Your task to perform on an android device: turn on showing notifications on the lock screen Image 0: 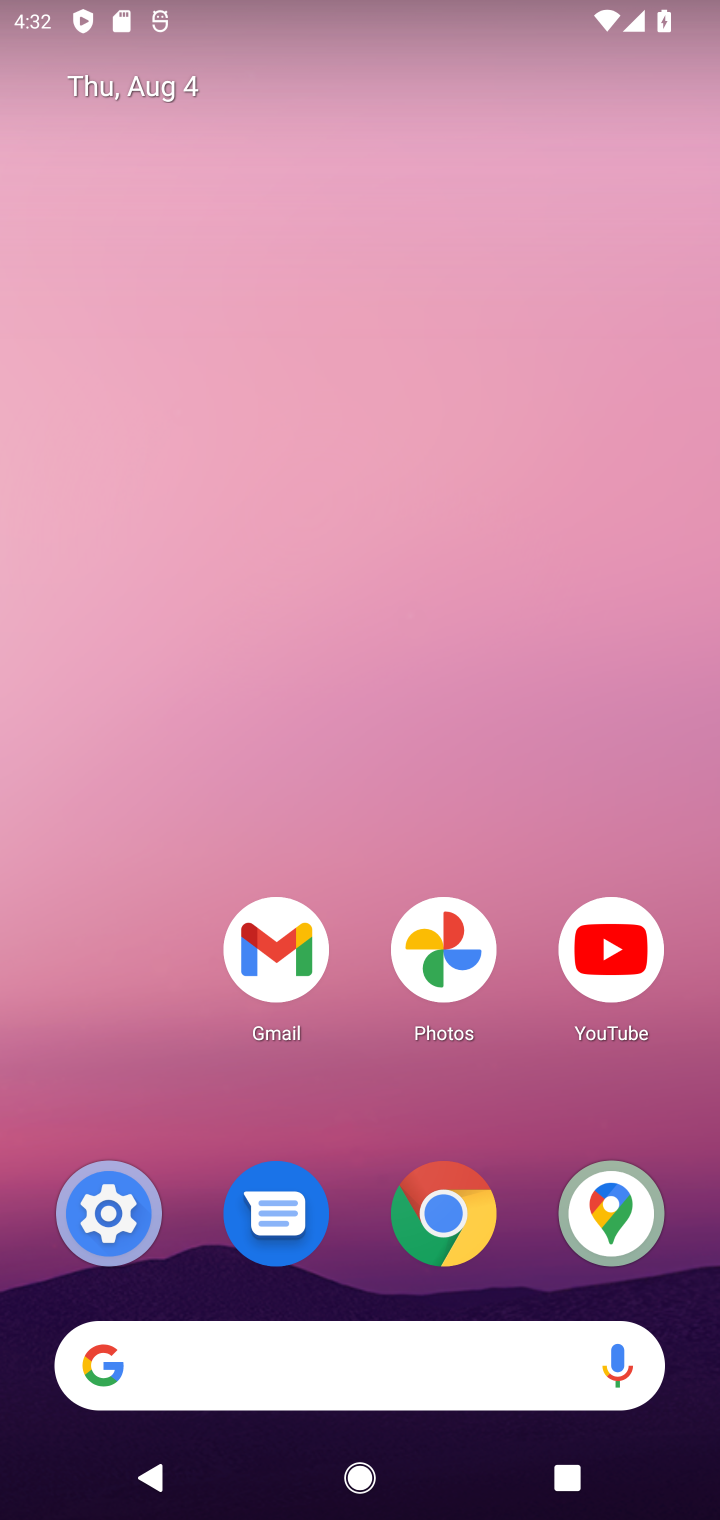
Step 0: press home button
Your task to perform on an android device: turn on showing notifications on the lock screen Image 1: 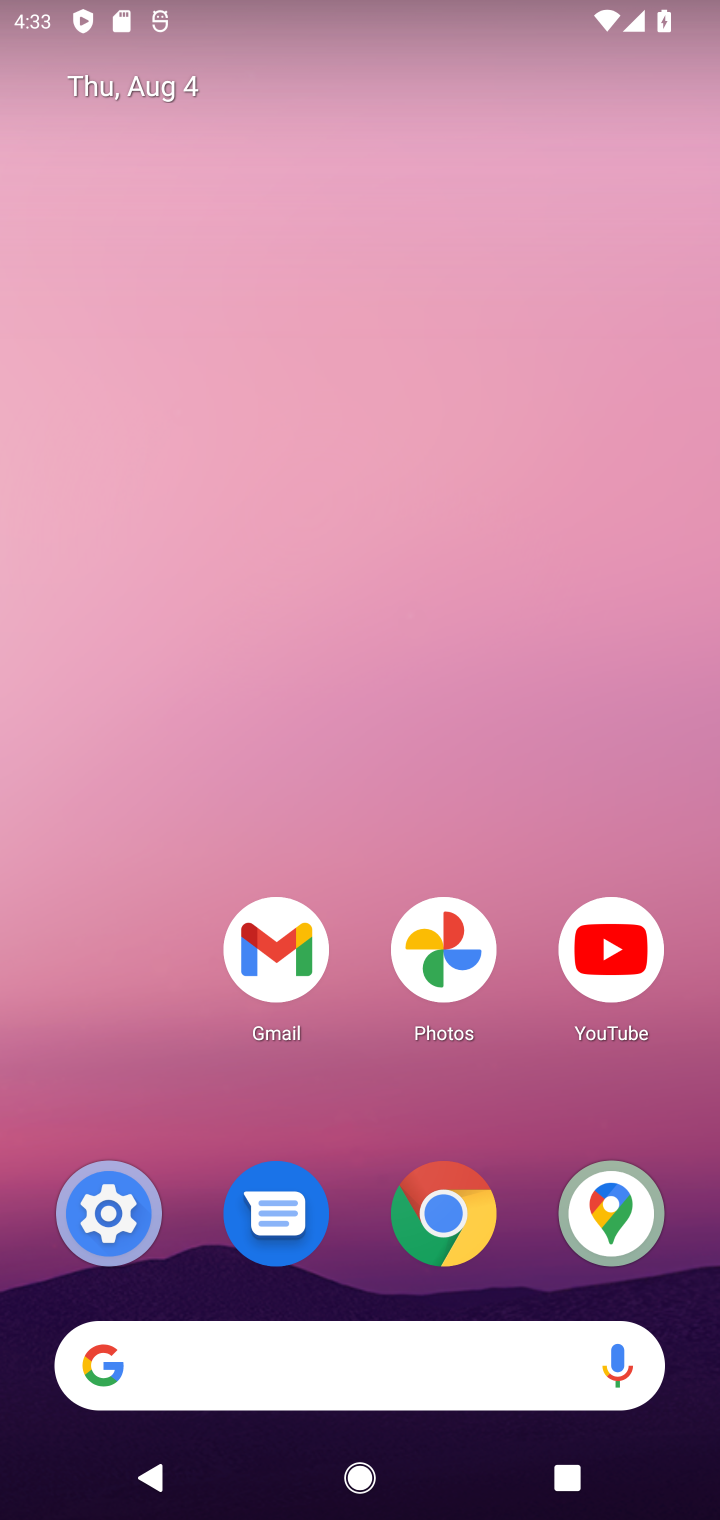
Step 1: drag from (172, 1041) to (193, 281)
Your task to perform on an android device: turn on showing notifications on the lock screen Image 2: 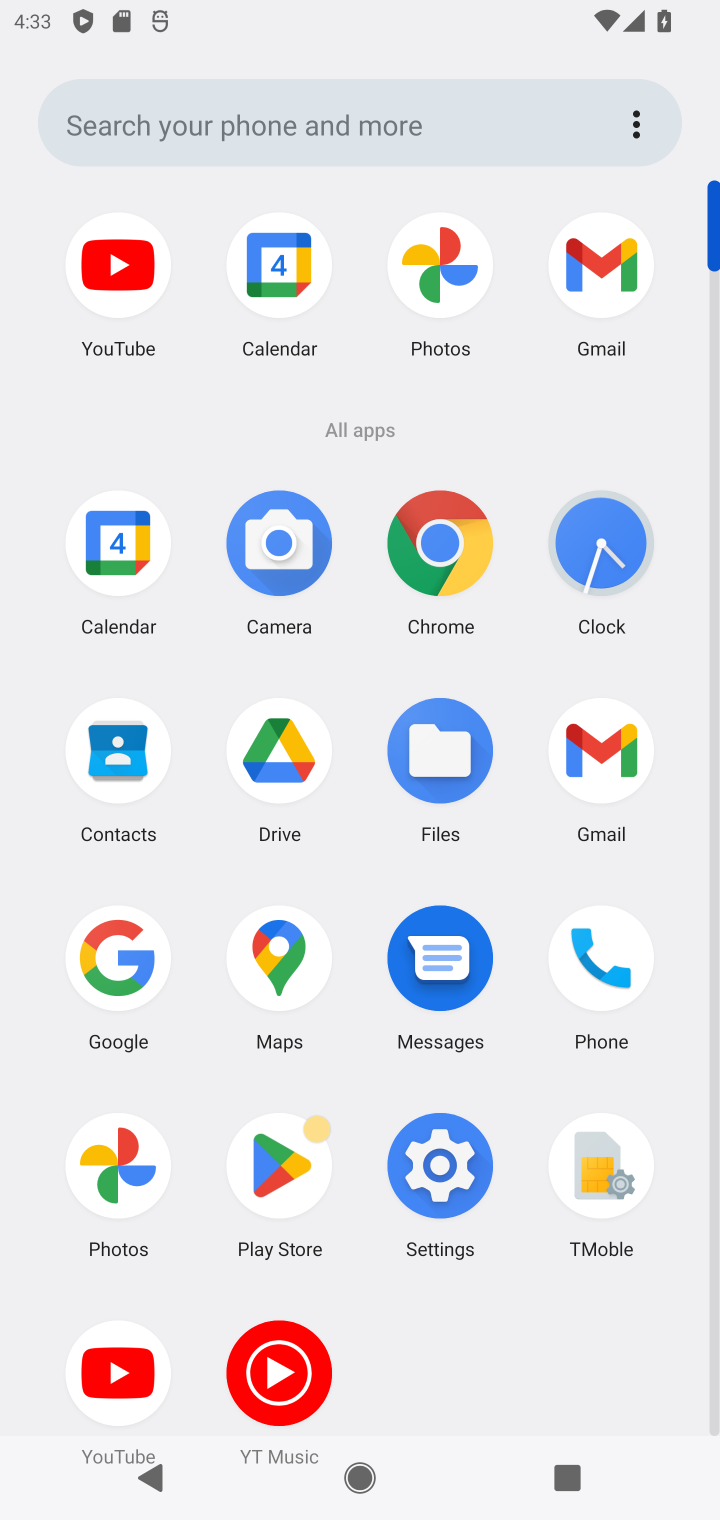
Step 2: click (451, 1175)
Your task to perform on an android device: turn on showing notifications on the lock screen Image 3: 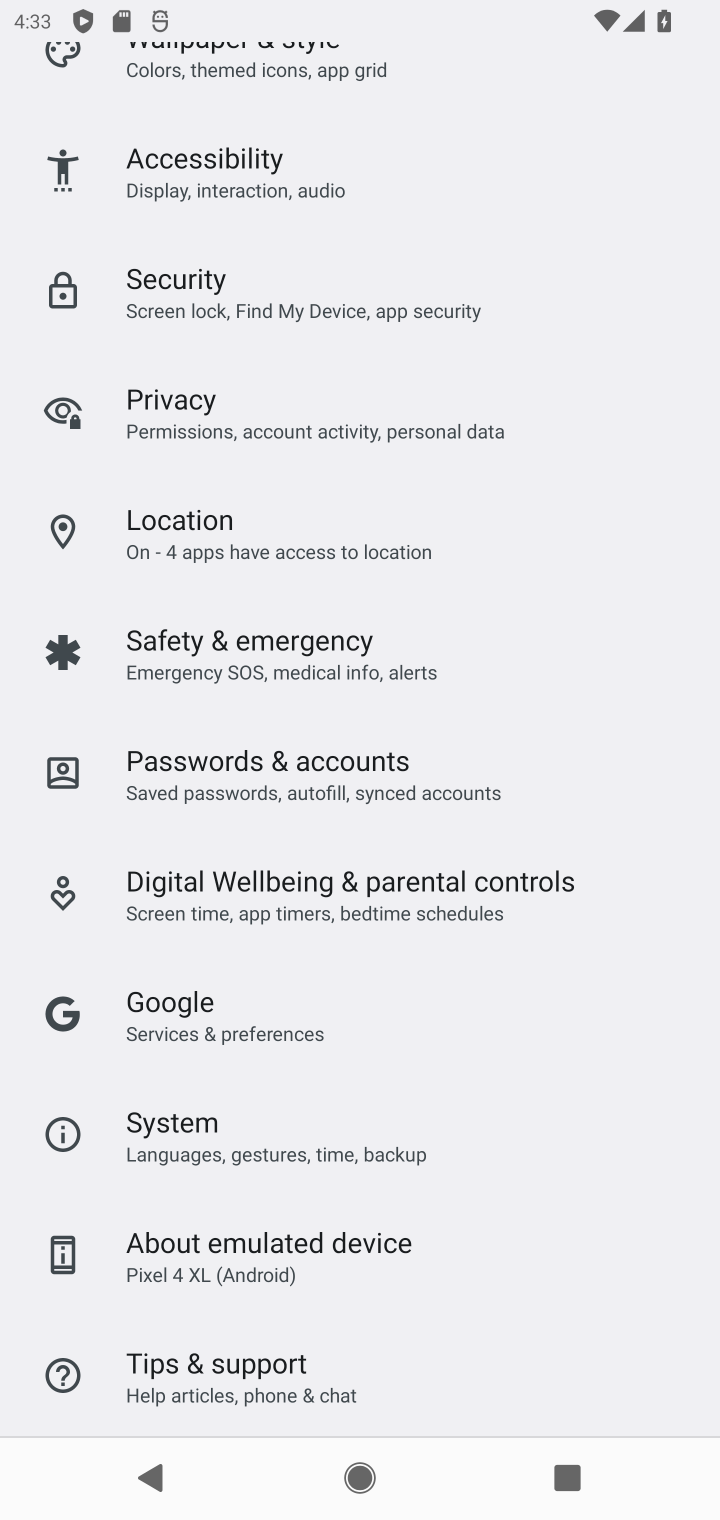
Step 3: drag from (576, 530) to (570, 743)
Your task to perform on an android device: turn on showing notifications on the lock screen Image 4: 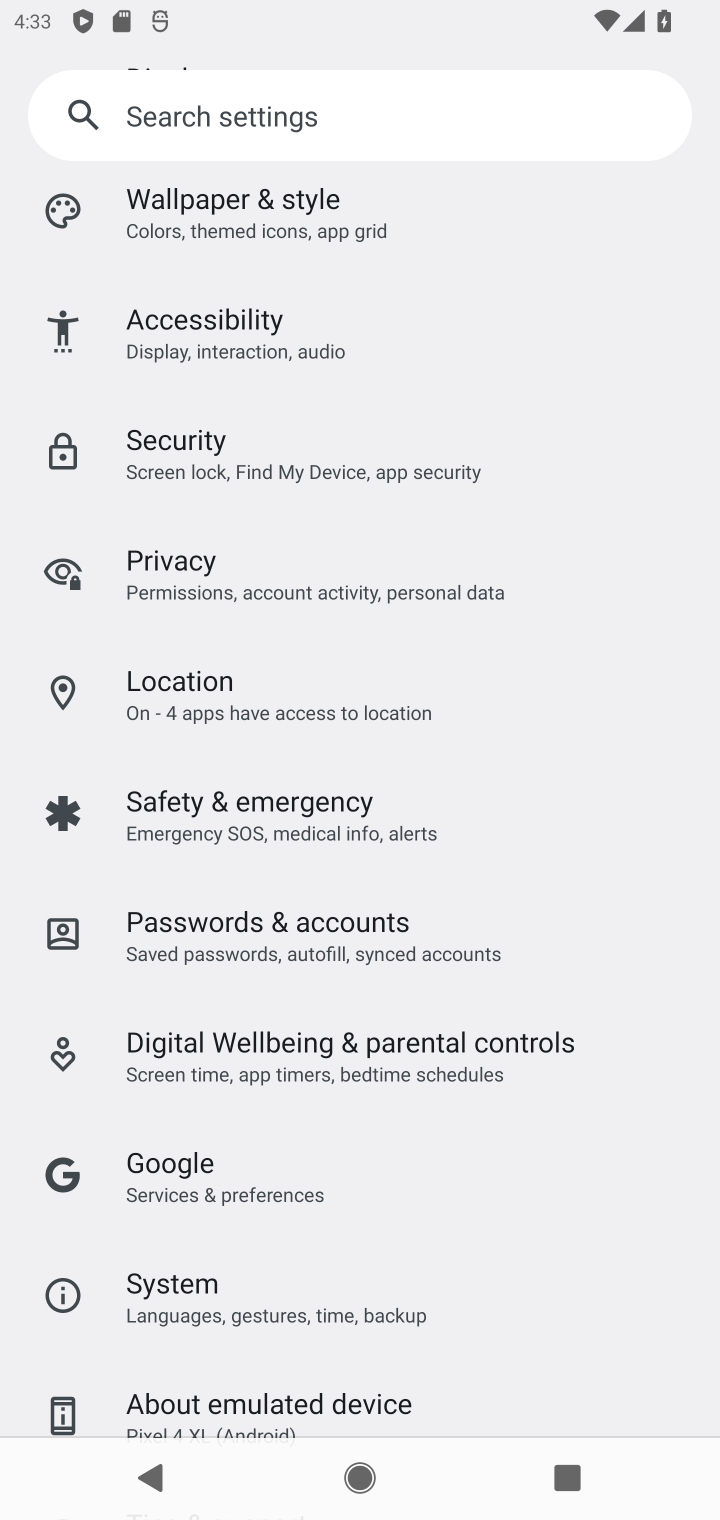
Step 4: drag from (604, 489) to (606, 788)
Your task to perform on an android device: turn on showing notifications on the lock screen Image 5: 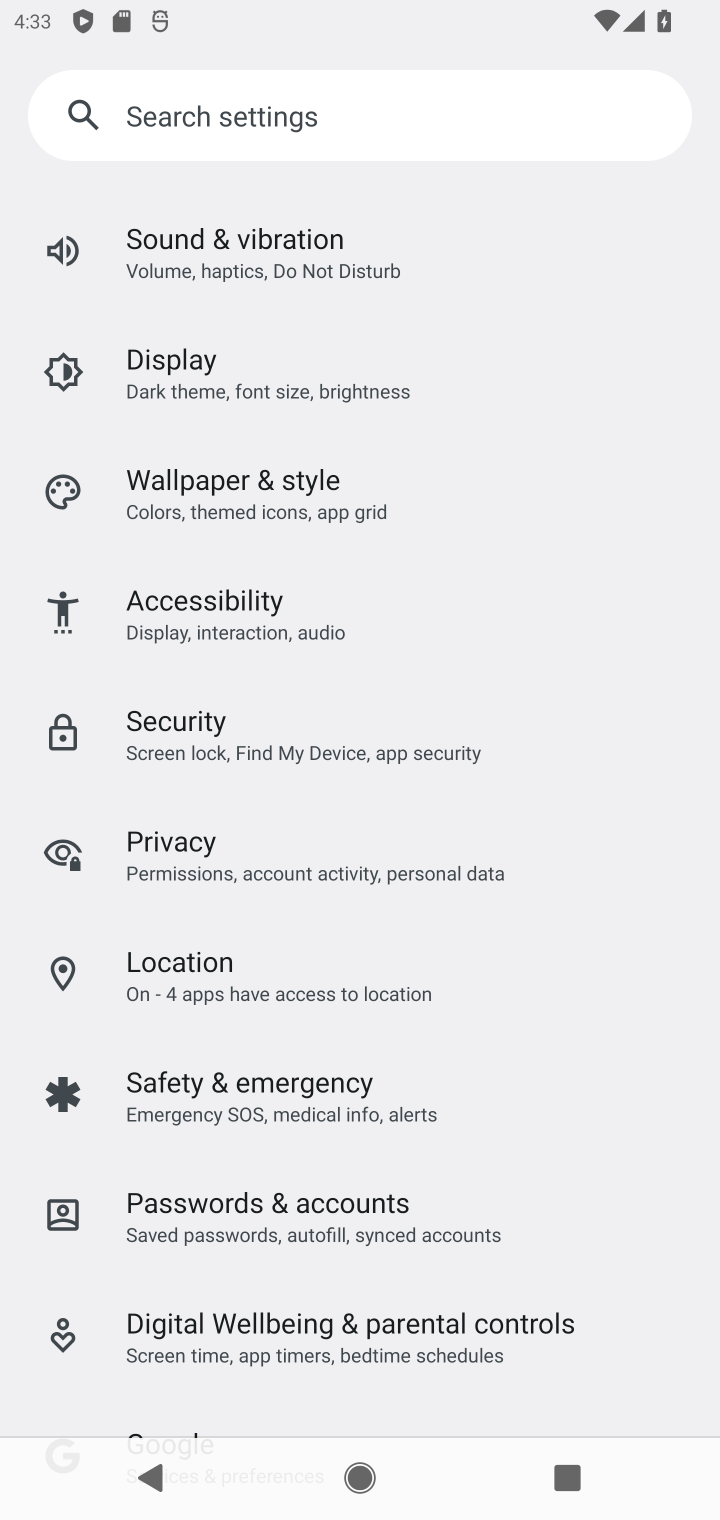
Step 5: drag from (598, 456) to (600, 705)
Your task to perform on an android device: turn on showing notifications on the lock screen Image 6: 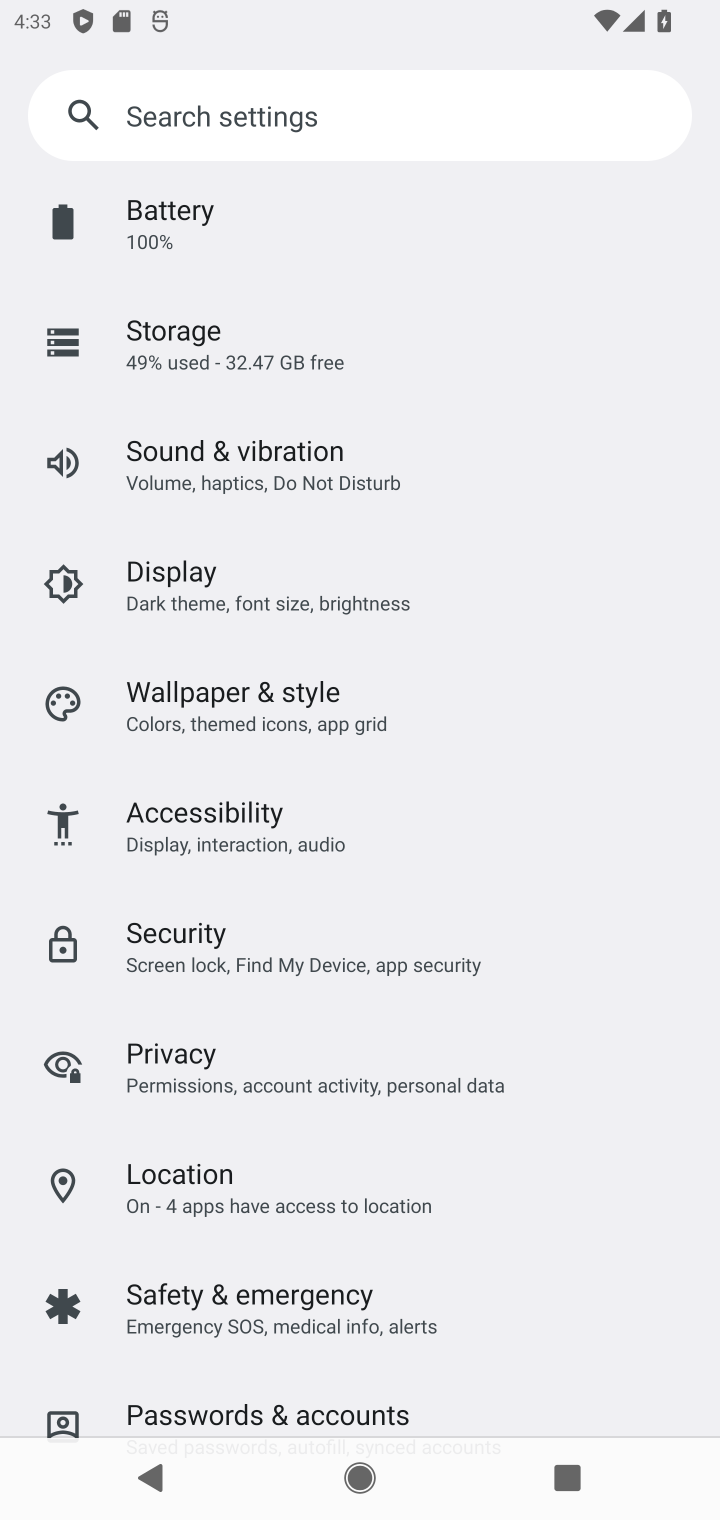
Step 6: drag from (589, 467) to (590, 759)
Your task to perform on an android device: turn on showing notifications on the lock screen Image 7: 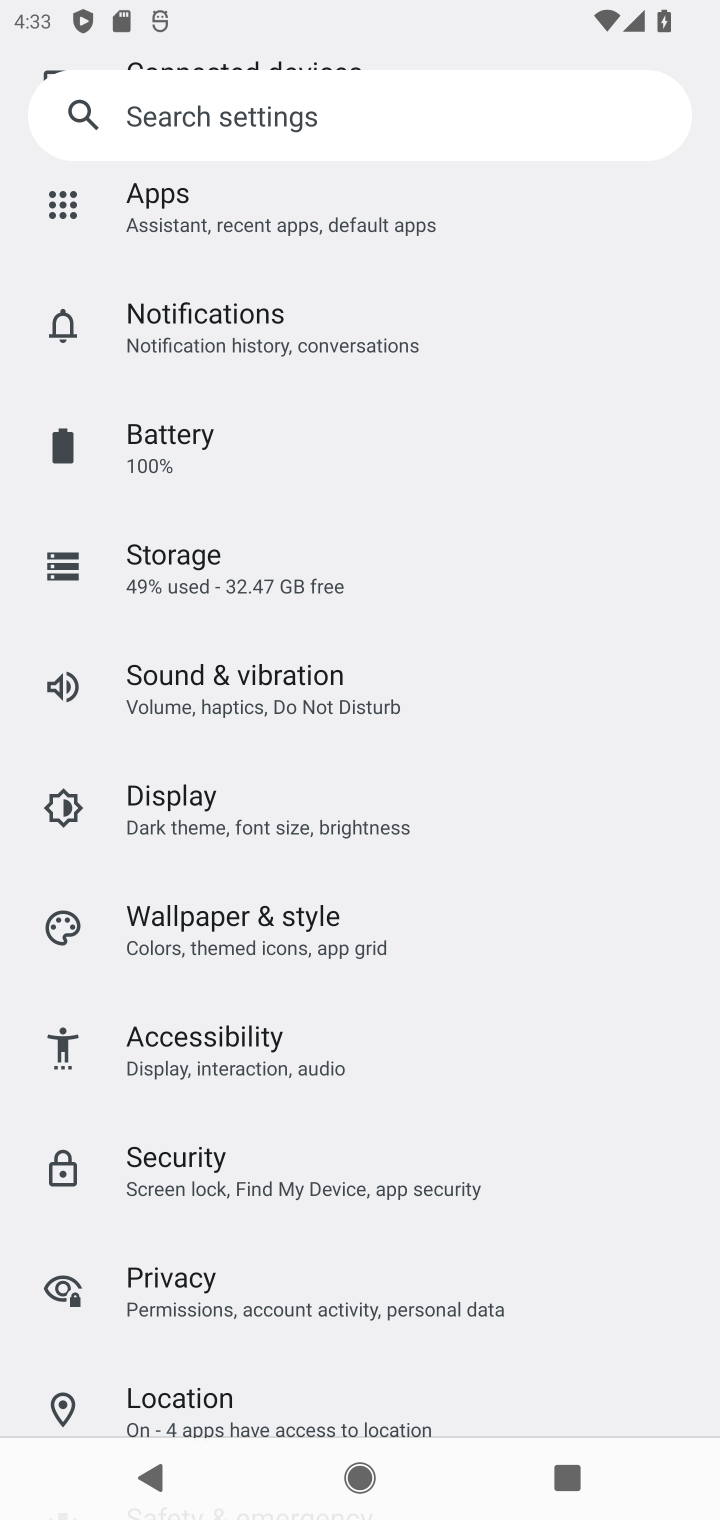
Step 7: drag from (568, 274) to (566, 629)
Your task to perform on an android device: turn on showing notifications on the lock screen Image 8: 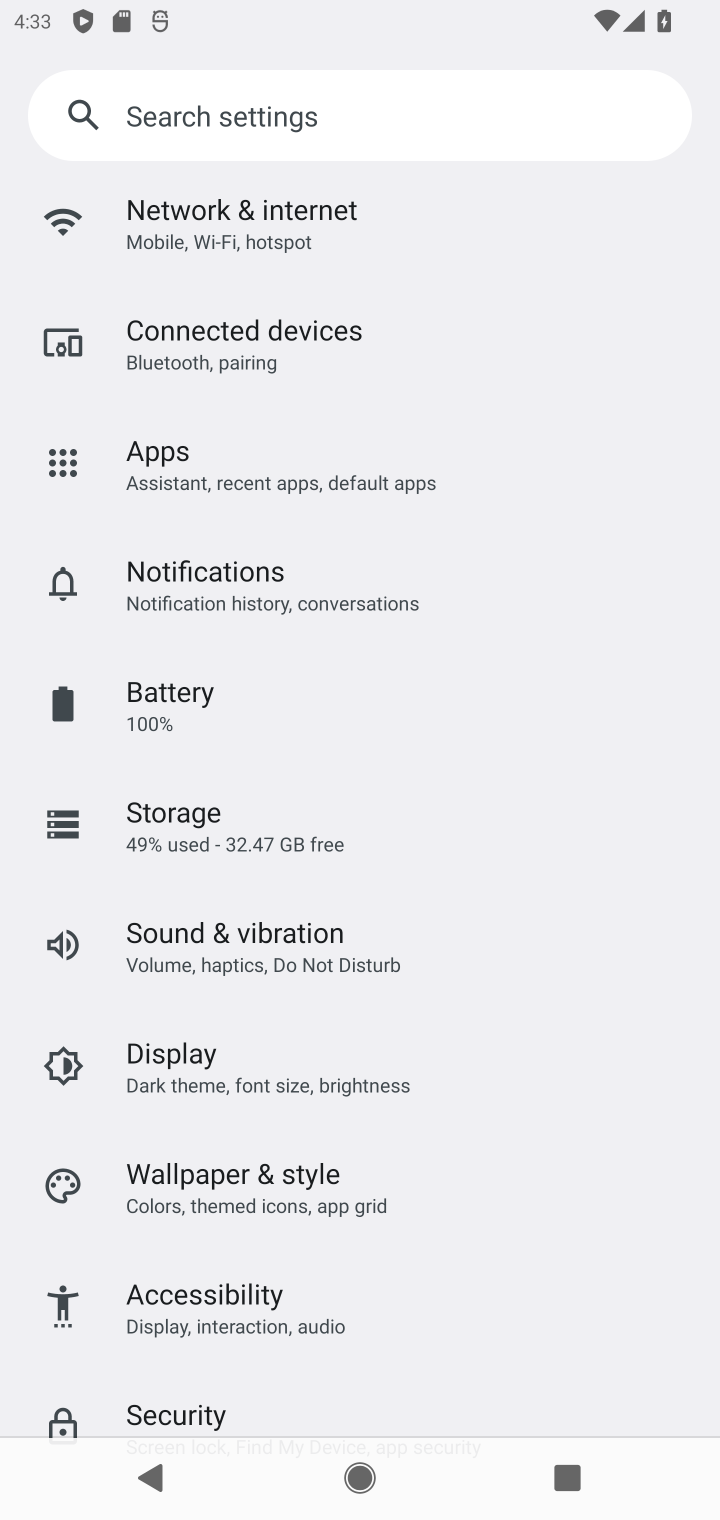
Step 8: click (330, 582)
Your task to perform on an android device: turn on showing notifications on the lock screen Image 9: 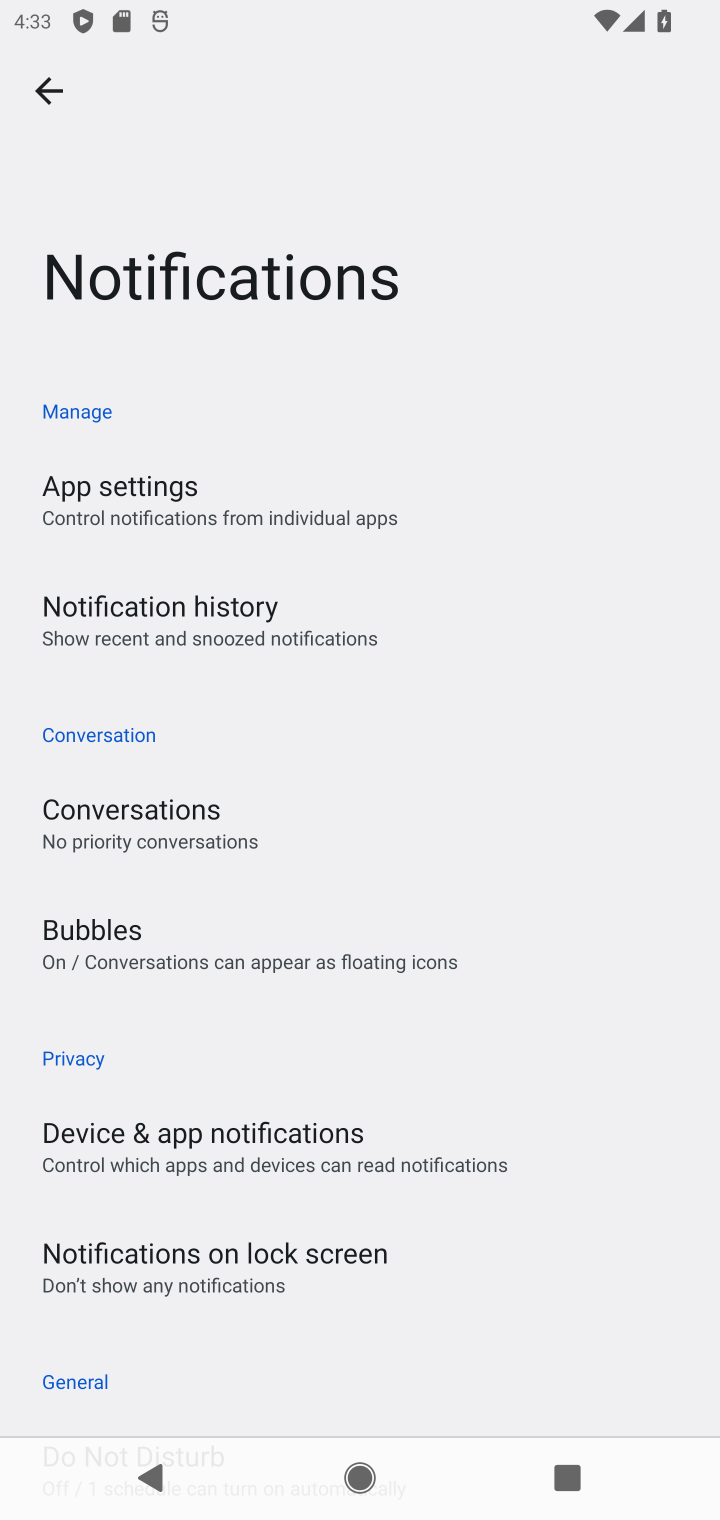
Step 9: drag from (535, 962) to (595, 531)
Your task to perform on an android device: turn on showing notifications on the lock screen Image 10: 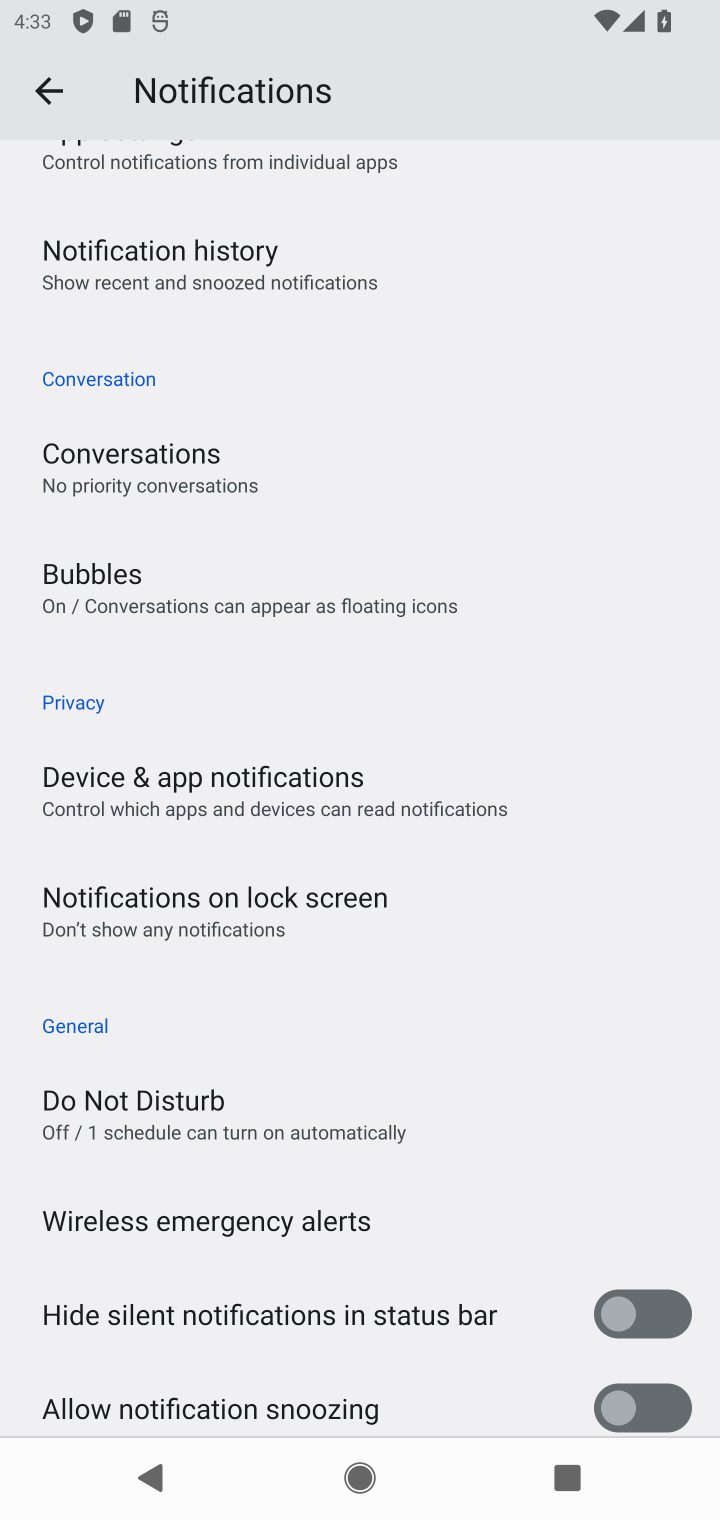
Step 10: click (474, 906)
Your task to perform on an android device: turn on showing notifications on the lock screen Image 11: 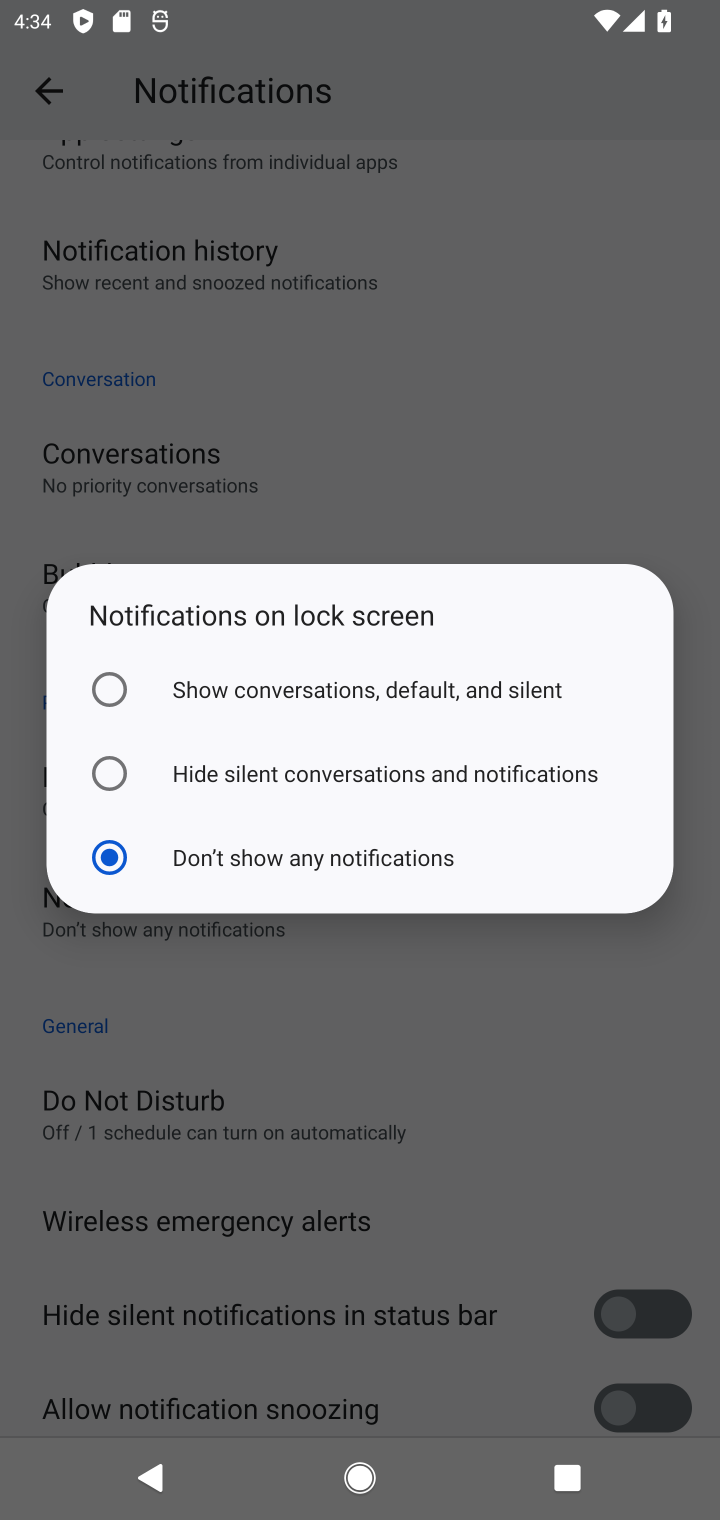
Step 11: click (364, 671)
Your task to perform on an android device: turn on showing notifications on the lock screen Image 12: 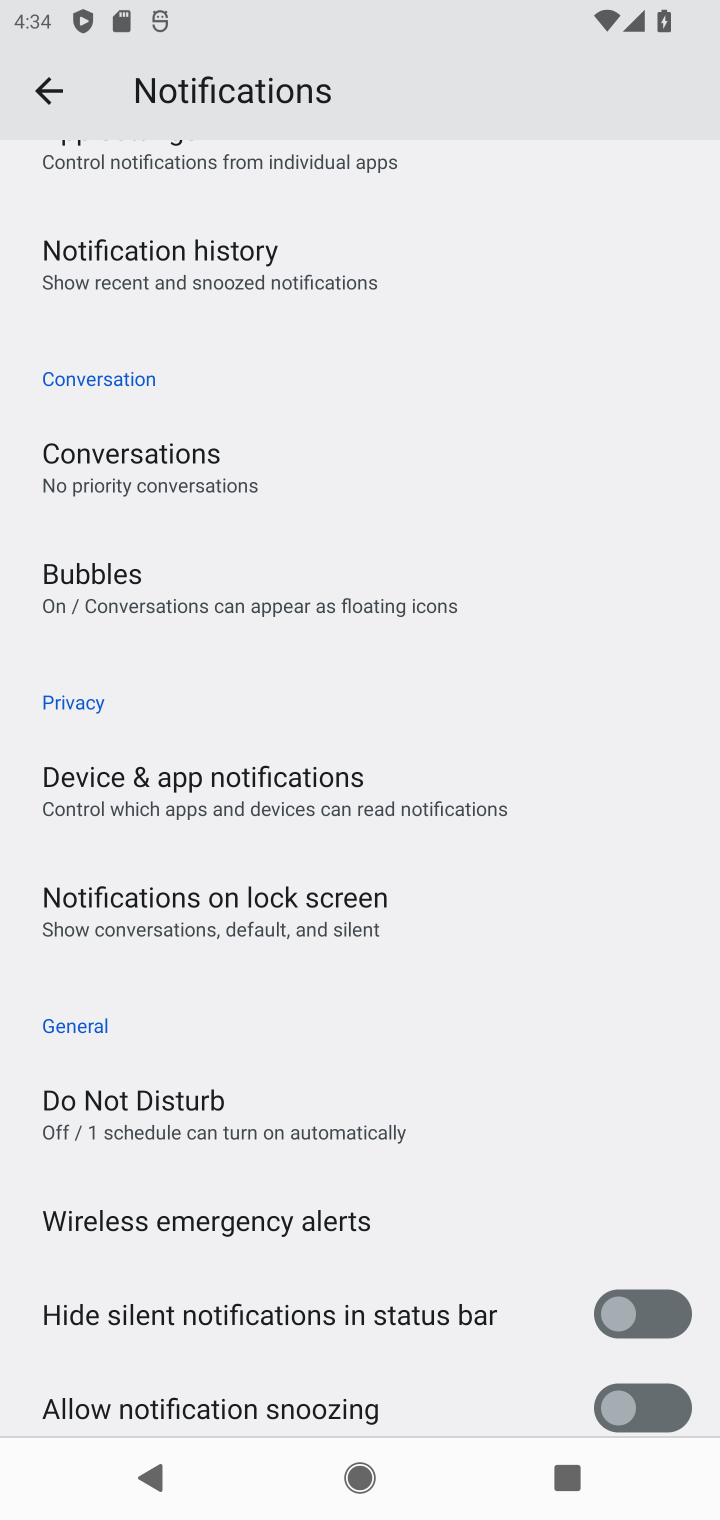
Step 12: task complete